Your task to perform on an android device: Show me the alarms in the clock app Image 0: 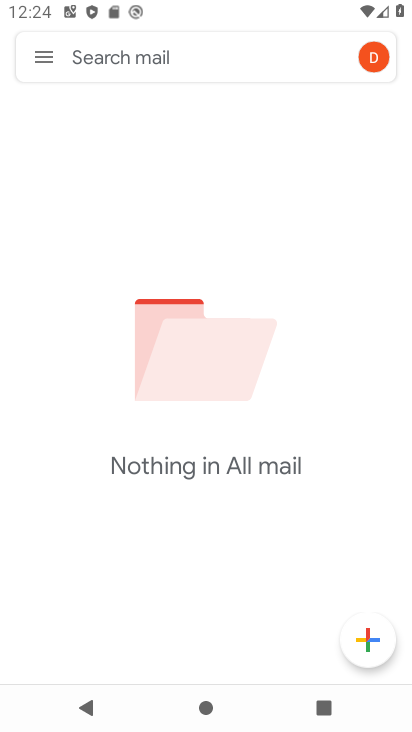
Step 0: press home button
Your task to perform on an android device: Show me the alarms in the clock app Image 1: 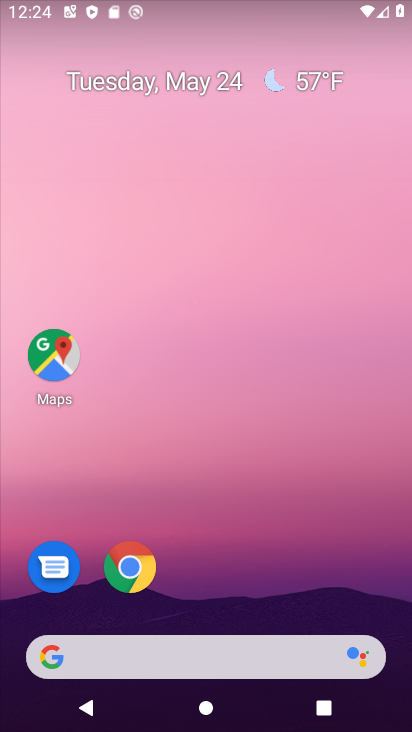
Step 1: drag from (234, 661) to (230, 107)
Your task to perform on an android device: Show me the alarms in the clock app Image 2: 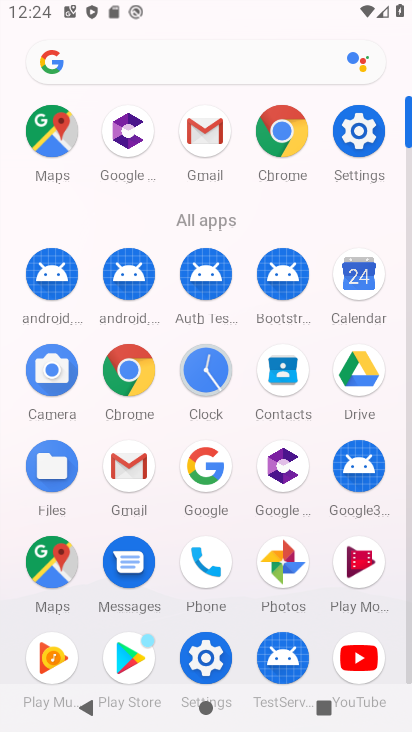
Step 2: click (198, 385)
Your task to perform on an android device: Show me the alarms in the clock app Image 3: 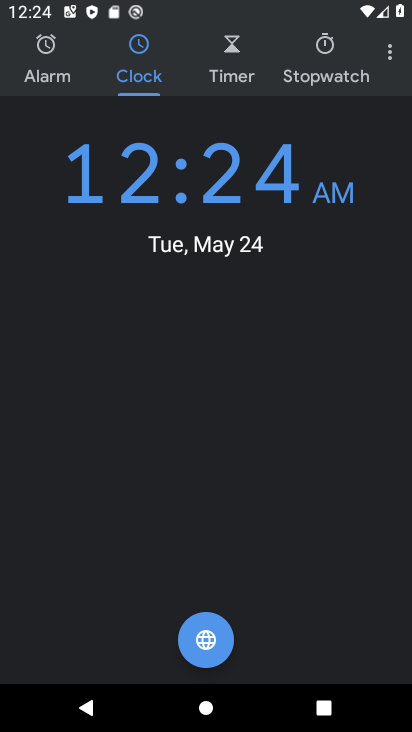
Step 3: click (53, 68)
Your task to perform on an android device: Show me the alarms in the clock app Image 4: 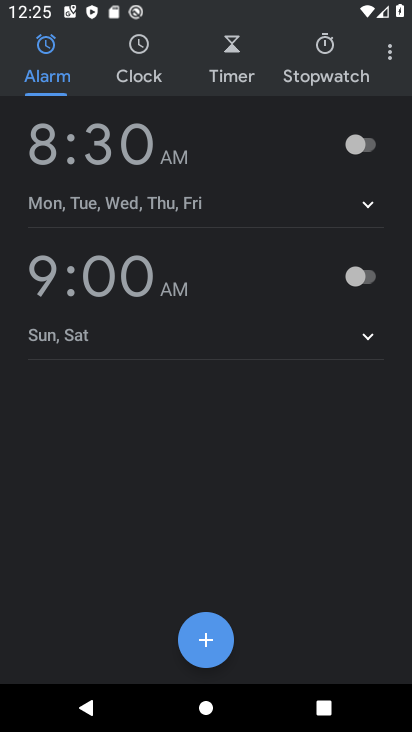
Step 4: task complete